Your task to perform on an android device: Go to calendar. Show me events next week Image 0: 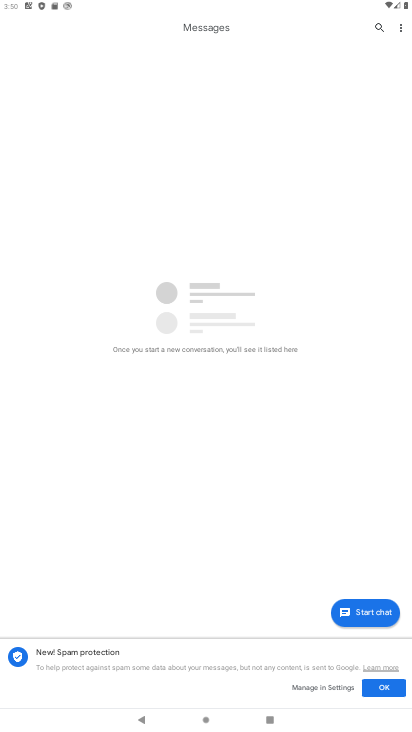
Step 0: drag from (36, 670) to (314, 109)
Your task to perform on an android device: Go to calendar. Show me events next week Image 1: 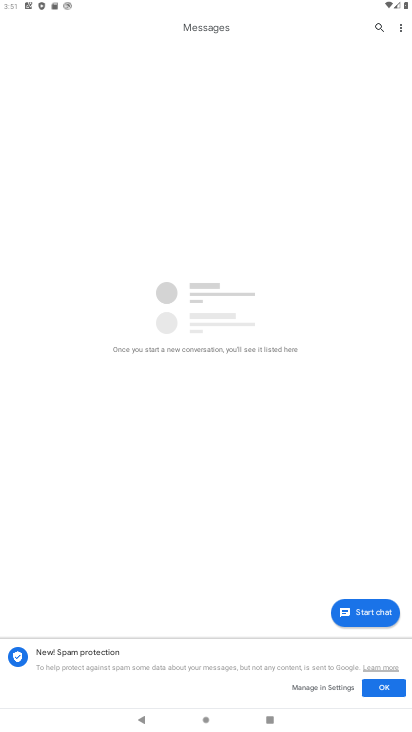
Step 1: press home button
Your task to perform on an android device: Go to calendar. Show me events next week Image 2: 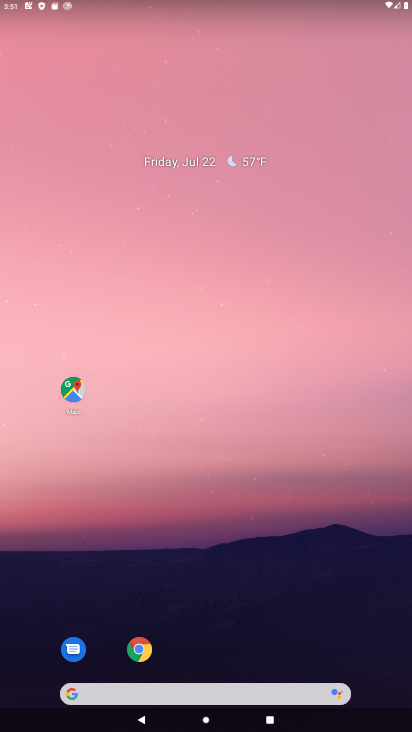
Step 2: drag from (107, 561) to (261, 195)
Your task to perform on an android device: Go to calendar. Show me events next week Image 3: 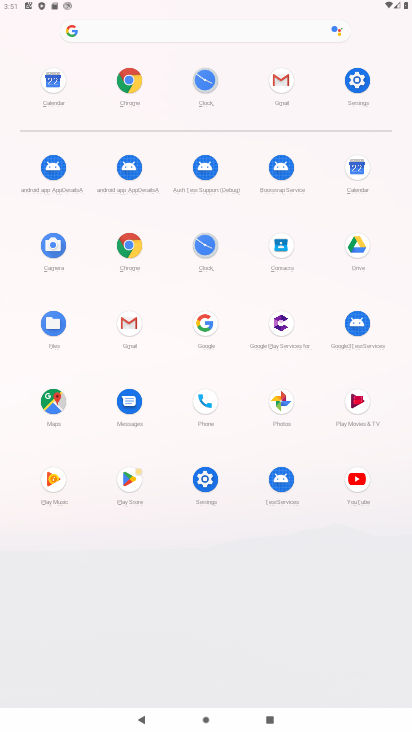
Step 3: click (367, 166)
Your task to perform on an android device: Go to calendar. Show me events next week Image 4: 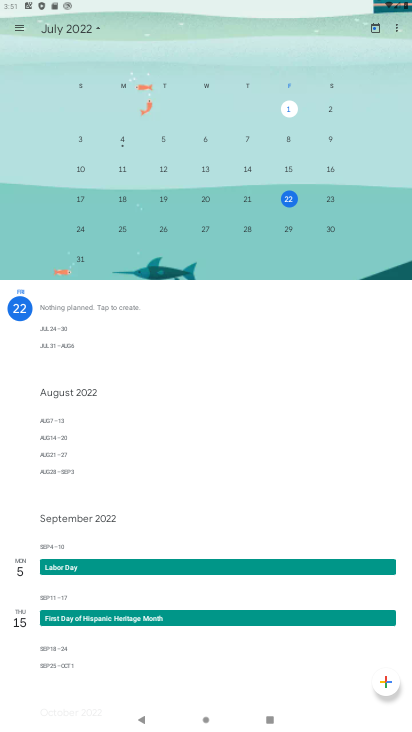
Step 4: task complete